Your task to perform on an android device: turn notification dots on Image 0: 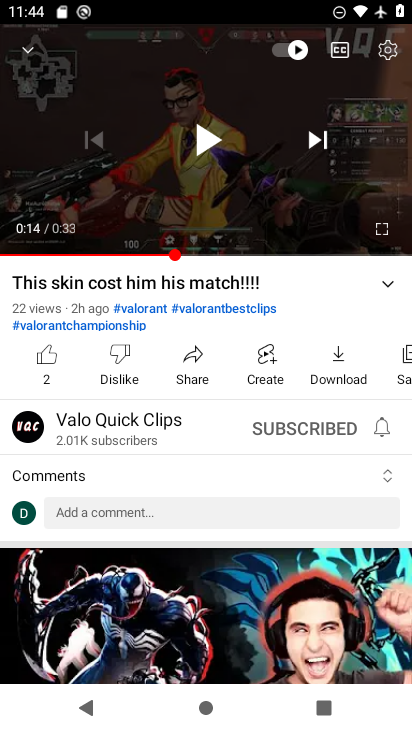
Step 0: press home button
Your task to perform on an android device: turn notification dots on Image 1: 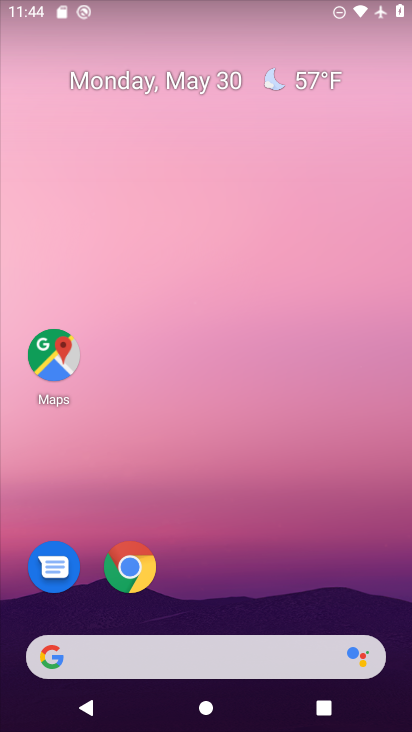
Step 1: drag from (216, 607) to (203, 197)
Your task to perform on an android device: turn notification dots on Image 2: 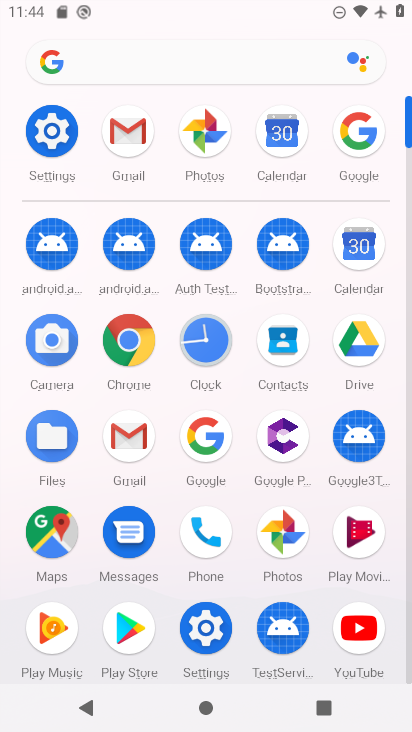
Step 2: click (42, 156)
Your task to perform on an android device: turn notification dots on Image 3: 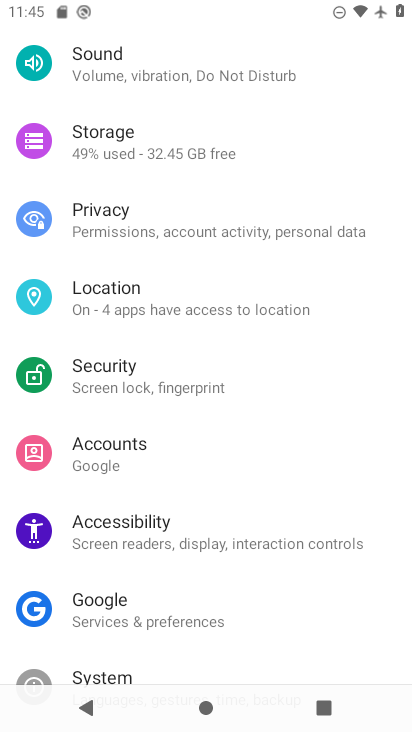
Step 3: drag from (199, 178) to (203, 519)
Your task to perform on an android device: turn notification dots on Image 4: 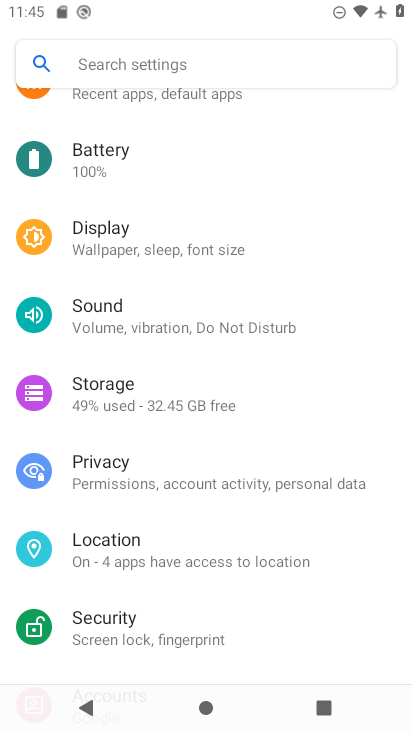
Step 4: drag from (178, 218) to (178, 435)
Your task to perform on an android device: turn notification dots on Image 5: 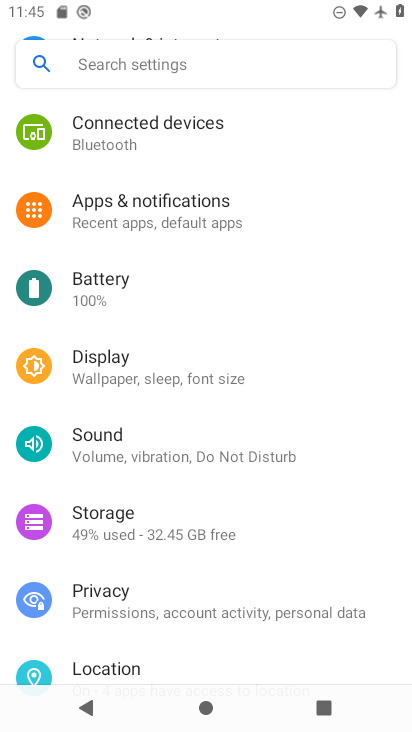
Step 5: click (154, 202)
Your task to perform on an android device: turn notification dots on Image 6: 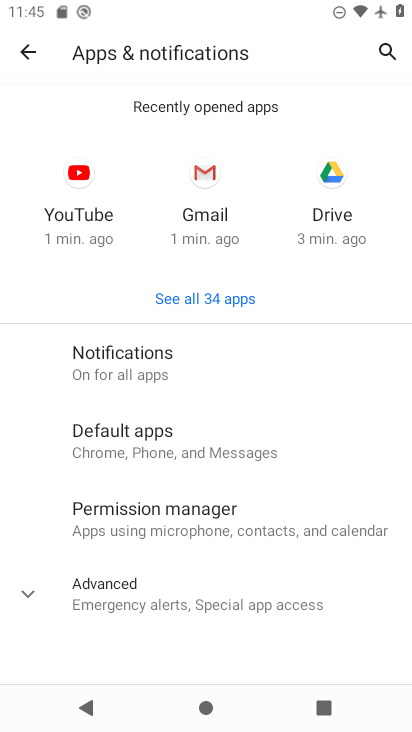
Step 6: click (169, 383)
Your task to perform on an android device: turn notification dots on Image 7: 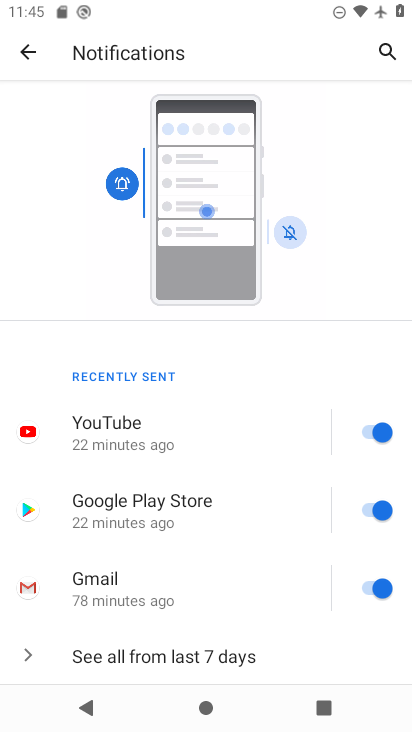
Step 7: drag from (249, 590) to (259, 226)
Your task to perform on an android device: turn notification dots on Image 8: 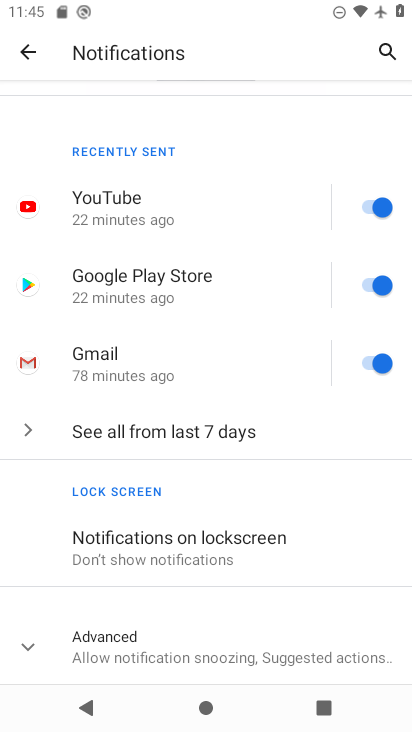
Step 8: click (162, 630)
Your task to perform on an android device: turn notification dots on Image 9: 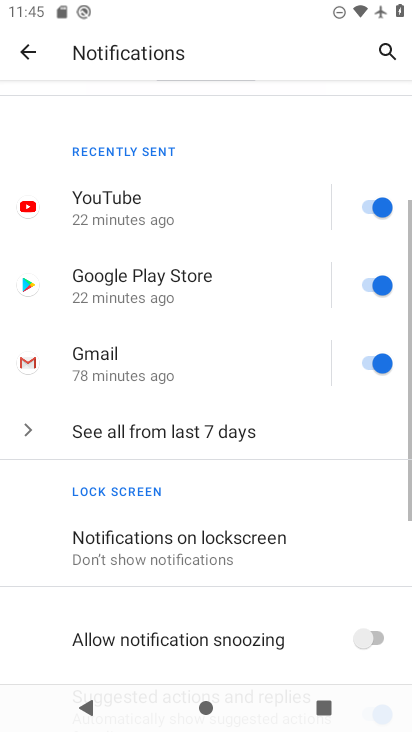
Step 9: task complete